Your task to perform on an android device: turn pop-ups off in chrome Image 0: 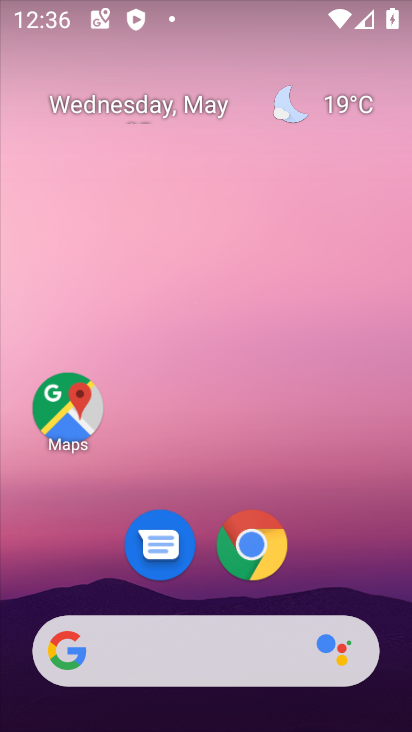
Step 0: click (254, 537)
Your task to perform on an android device: turn pop-ups off in chrome Image 1: 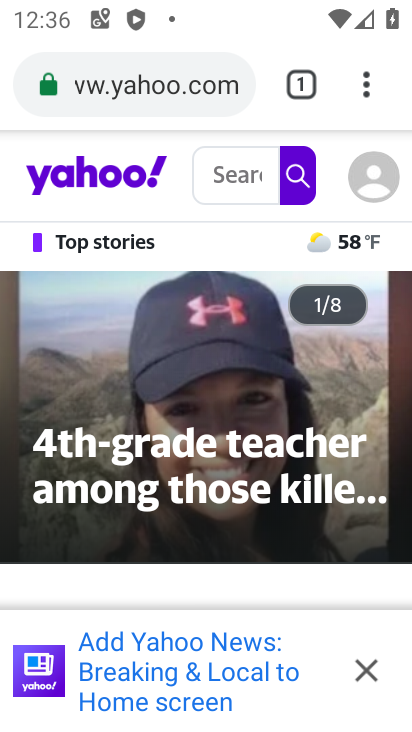
Step 1: click (378, 90)
Your task to perform on an android device: turn pop-ups off in chrome Image 2: 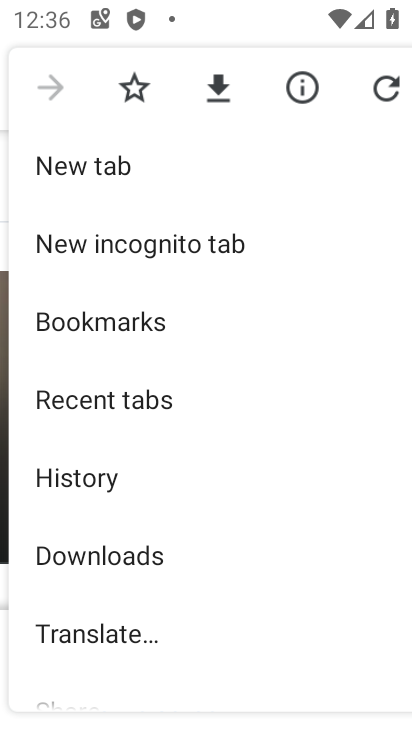
Step 2: drag from (289, 712) to (274, 329)
Your task to perform on an android device: turn pop-ups off in chrome Image 3: 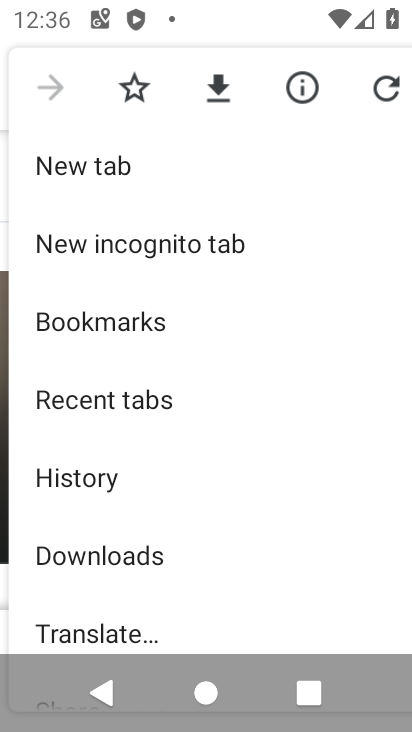
Step 3: drag from (95, 604) to (134, 313)
Your task to perform on an android device: turn pop-ups off in chrome Image 4: 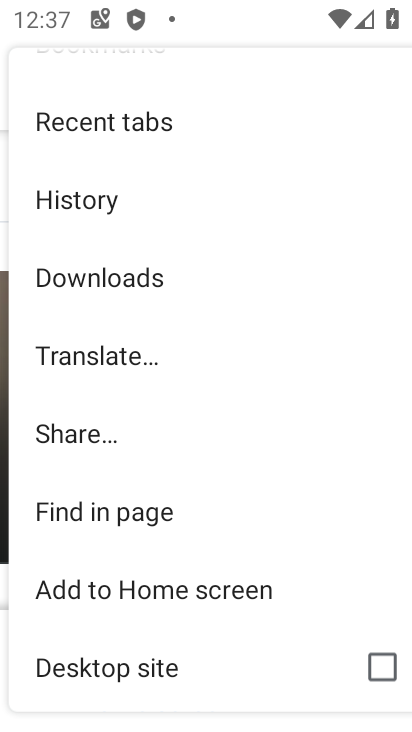
Step 4: drag from (123, 565) to (176, 179)
Your task to perform on an android device: turn pop-ups off in chrome Image 5: 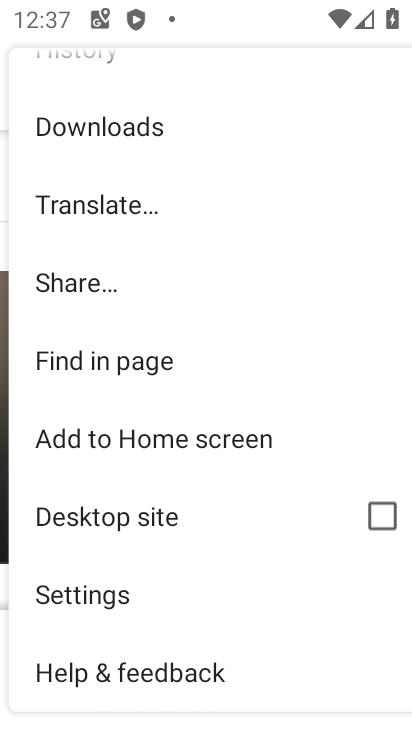
Step 5: click (101, 593)
Your task to perform on an android device: turn pop-ups off in chrome Image 6: 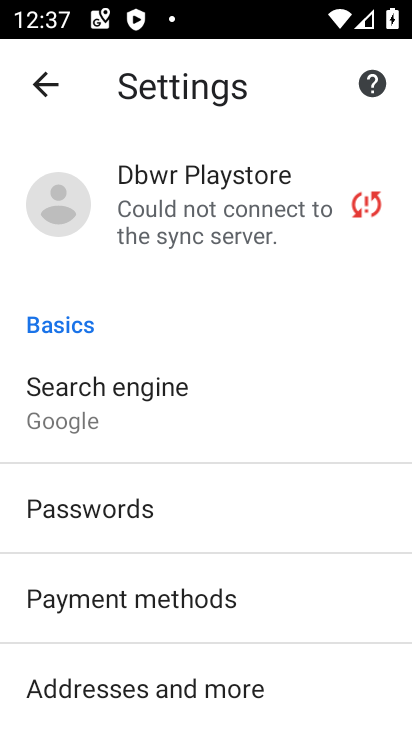
Step 6: drag from (106, 638) to (199, 187)
Your task to perform on an android device: turn pop-ups off in chrome Image 7: 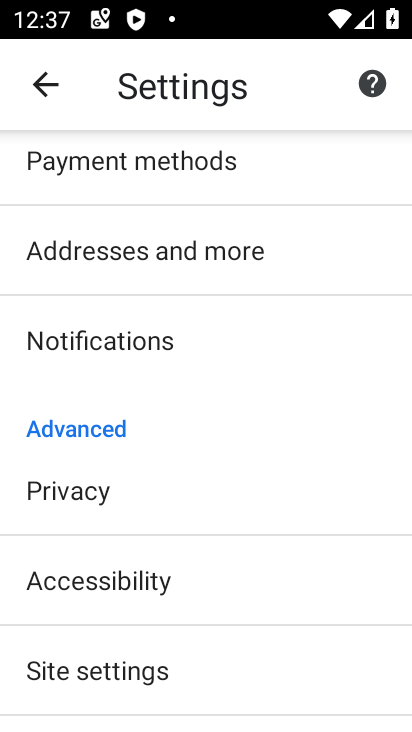
Step 7: click (213, 702)
Your task to perform on an android device: turn pop-ups off in chrome Image 8: 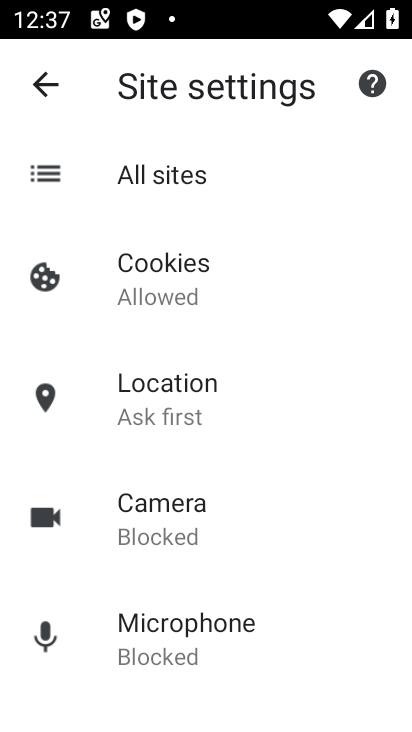
Step 8: drag from (213, 702) to (333, 131)
Your task to perform on an android device: turn pop-ups off in chrome Image 9: 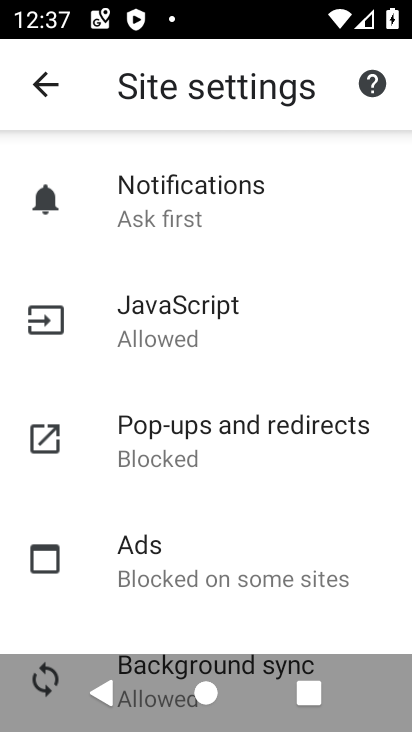
Step 9: click (102, 448)
Your task to perform on an android device: turn pop-ups off in chrome Image 10: 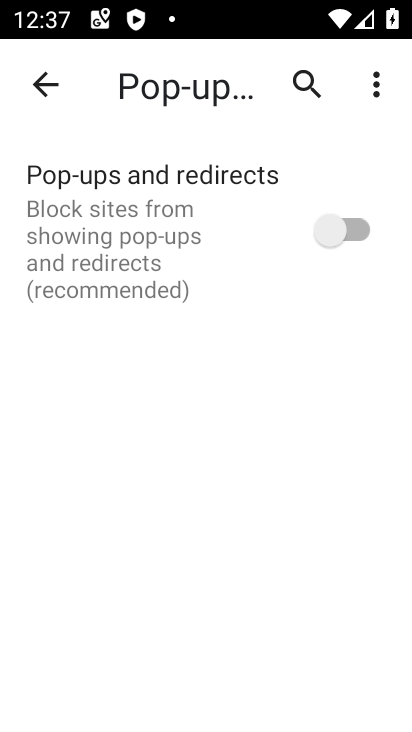
Step 10: task complete